Your task to perform on an android device: Turn on the flashlight Image 0: 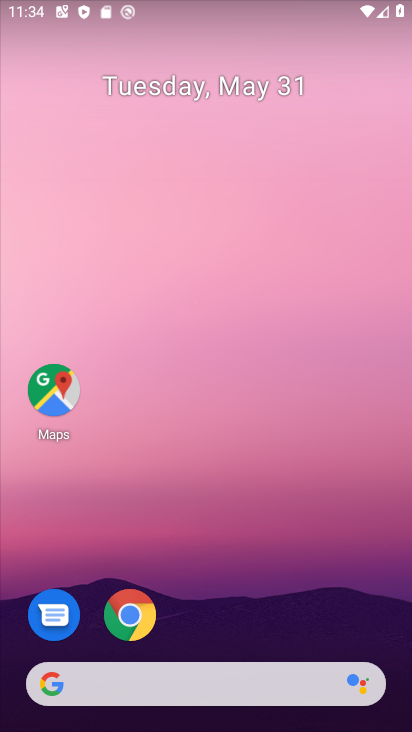
Step 0: task complete